Your task to perform on an android device: Add alienware aurora to the cart on ebay Image 0: 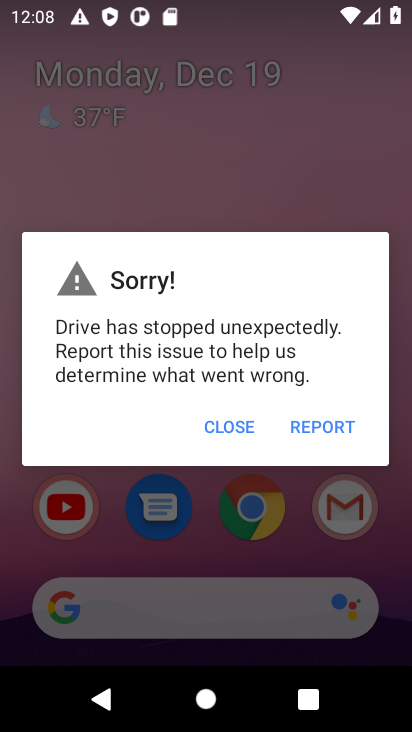
Step 0: press home button
Your task to perform on an android device: Add alienware aurora to the cart on ebay Image 1: 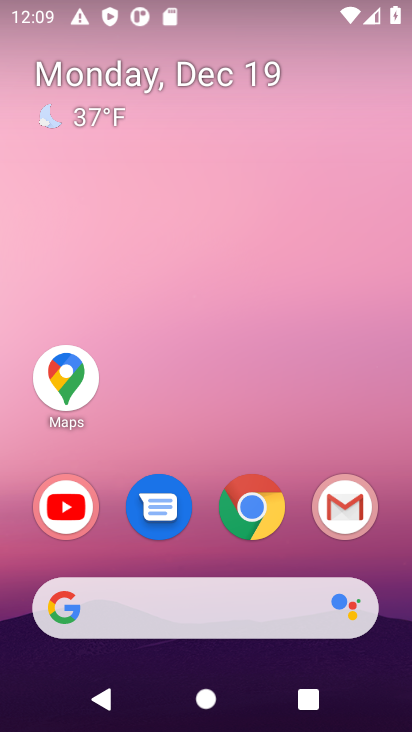
Step 1: click (252, 512)
Your task to perform on an android device: Add alienware aurora to the cart on ebay Image 2: 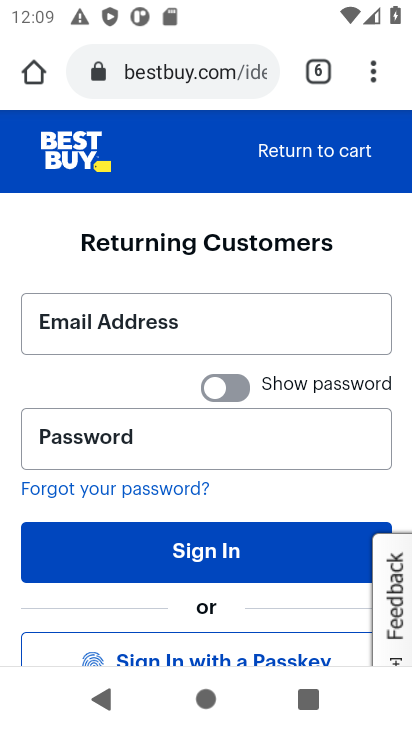
Step 2: click (172, 71)
Your task to perform on an android device: Add alienware aurora to the cart on ebay Image 3: 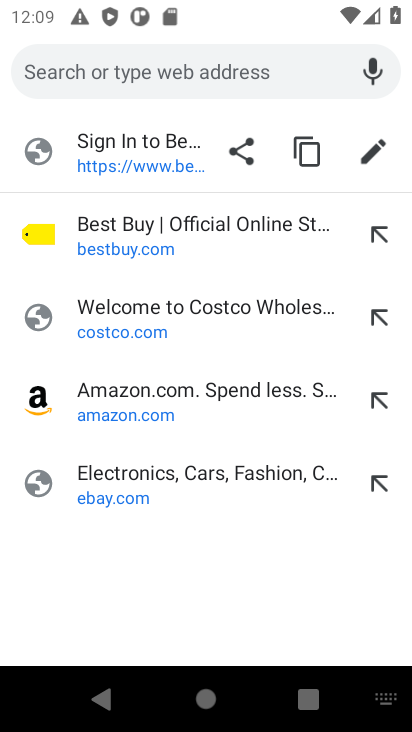
Step 3: click (98, 495)
Your task to perform on an android device: Add alienware aurora to the cart on ebay Image 4: 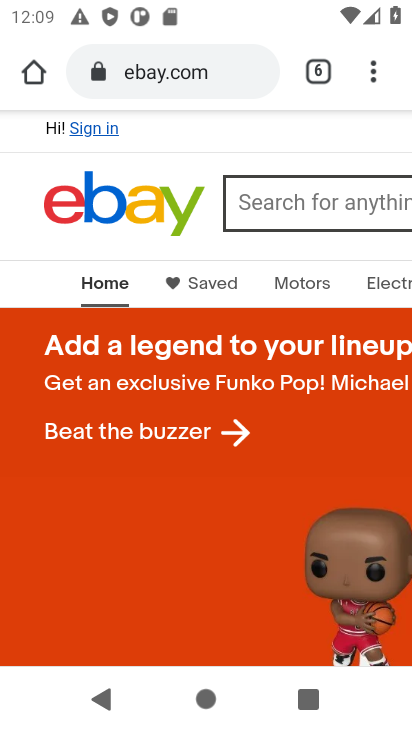
Step 4: click (259, 202)
Your task to perform on an android device: Add alienware aurora to the cart on ebay Image 5: 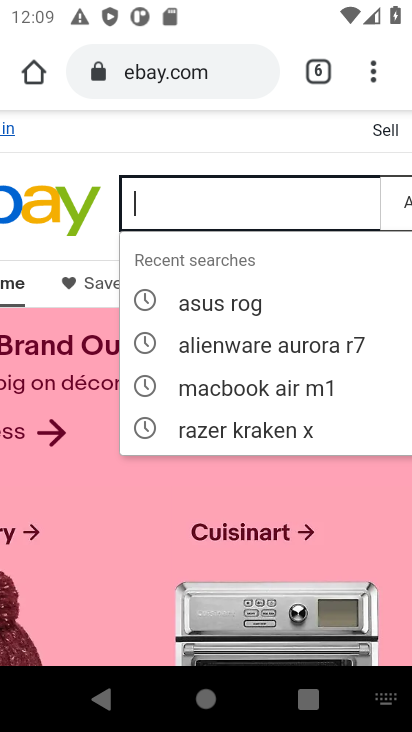
Step 5: type "alienware aurora"
Your task to perform on an android device: Add alienware aurora to the cart on ebay Image 6: 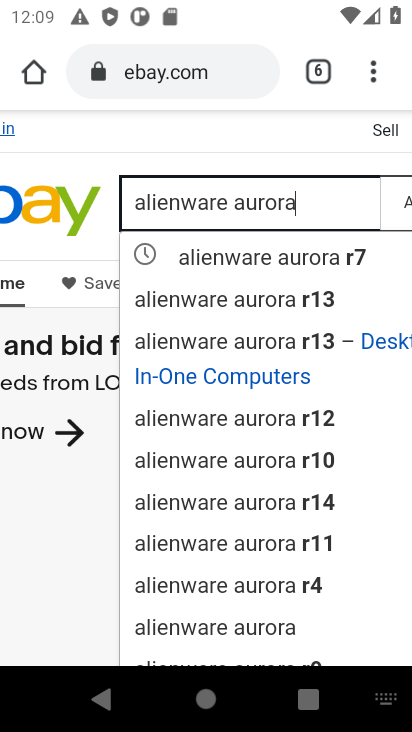
Step 6: click (208, 628)
Your task to perform on an android device: Add alienware aurora to the cart on ebay Image 7: 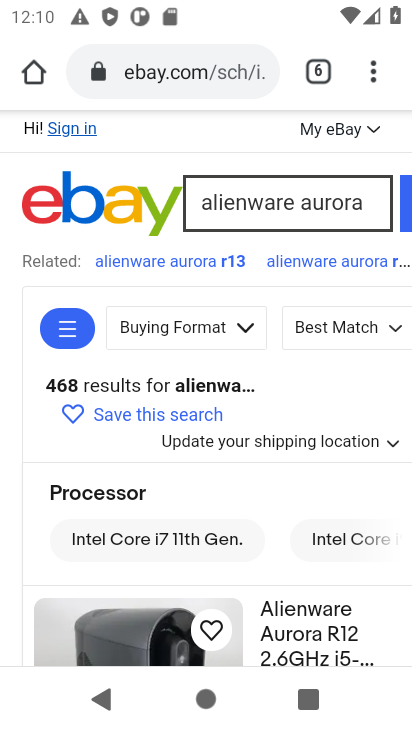
Step 7: drag from (213, 602) to (224, 246)
Your task to perform on an android device: Add alienware aurora to the cart on ebay Image 8: 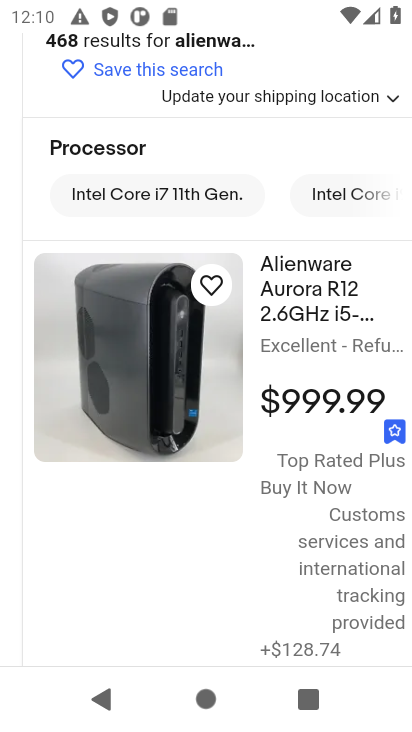
Step 8: click (295, 311)
Your task to perform on an android device: Add alienware aurora to the cart on ebay Image 9: 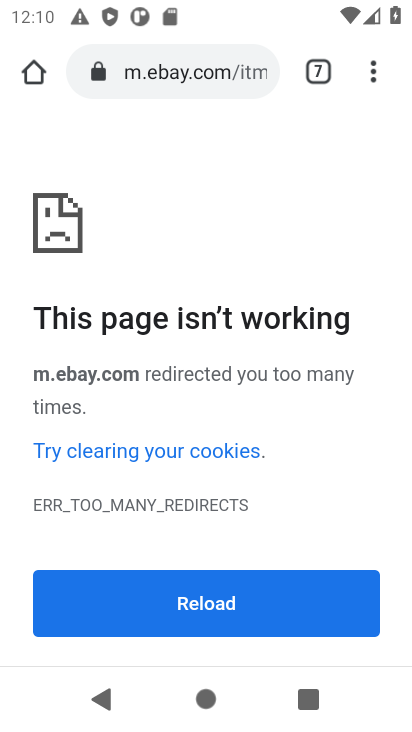
Step 9: task complete